Your task to perform on an android device: Open Chrome and go to settings Image 0: 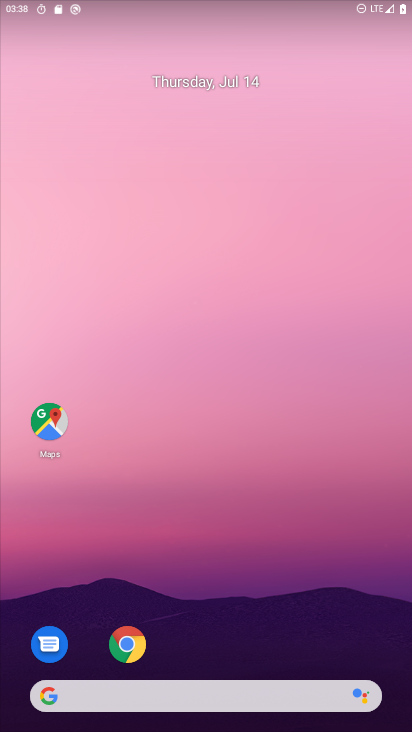
Step 0: drag from (227, 416) to (229, 134)
Your task to perform on an android device: Open Chrome and go to settings Image 1: 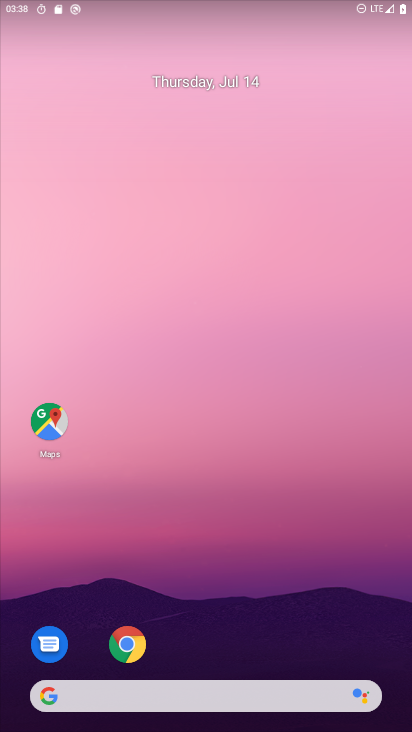
Step 1: click (129, 645)
Your task to perform on an android device: Open Chrome and go to settings Image 2: 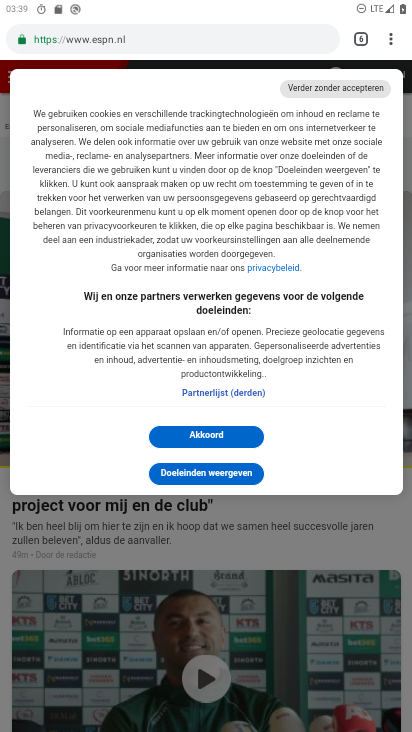
Step 2: task complete